Your task to perform on an android device: When is my next meeting? Image 0: 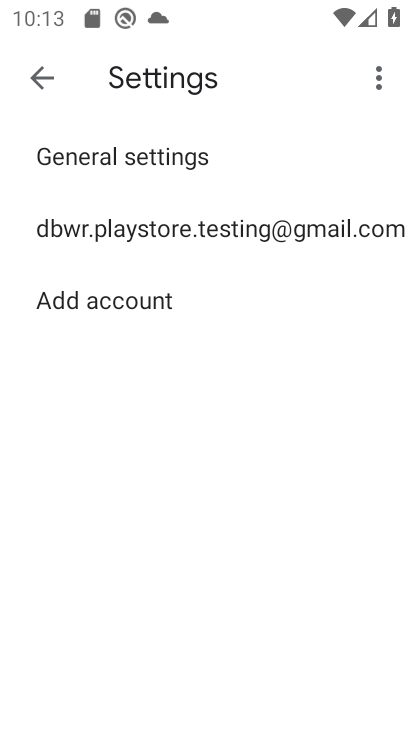
Step 0: press home button
Your task to perform on an android device: When is my next meeting? Image 1: 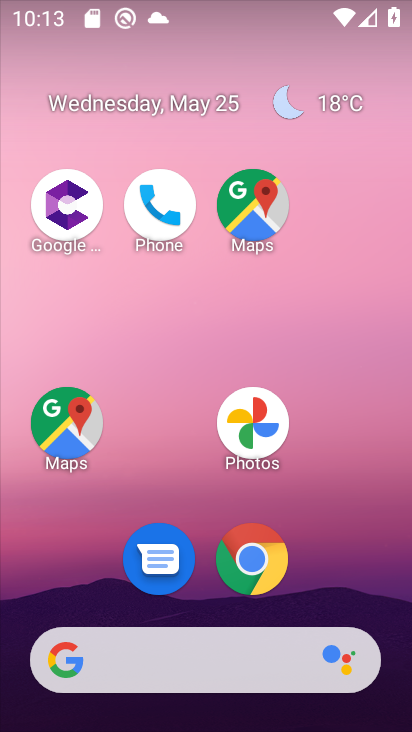
Step 1: drag from (358, 549) to (302, 71)
Your task to perform on an android device: When is my next meeting? Image 2: 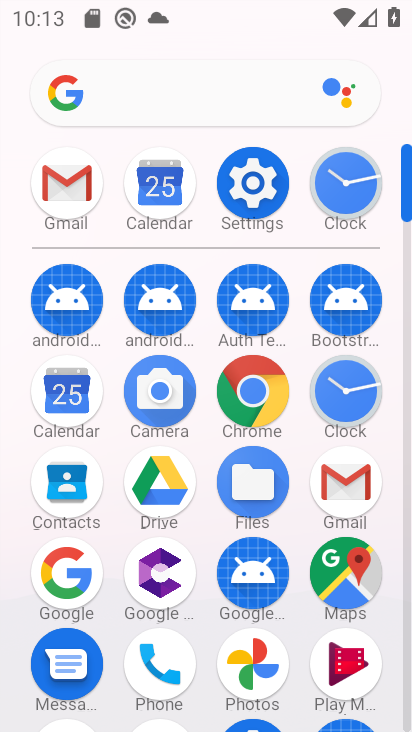
Step 2: click (159, 190)
Your task to perform on an android device: When is my next meeting? Image 3: 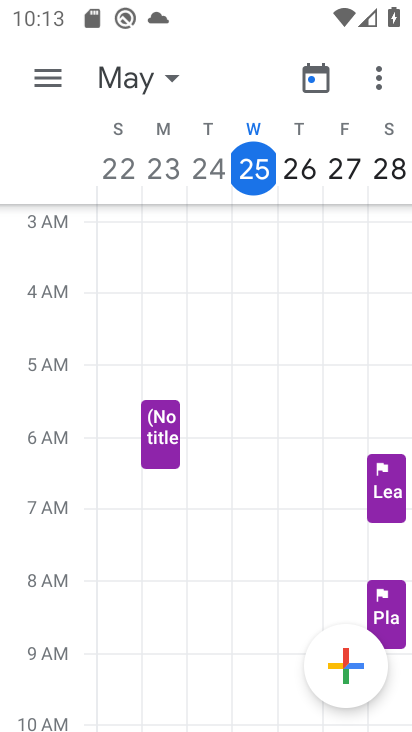
Step 3: click (55, 82)
Your task to perform on an android device: When is my next meeting? Image 4: 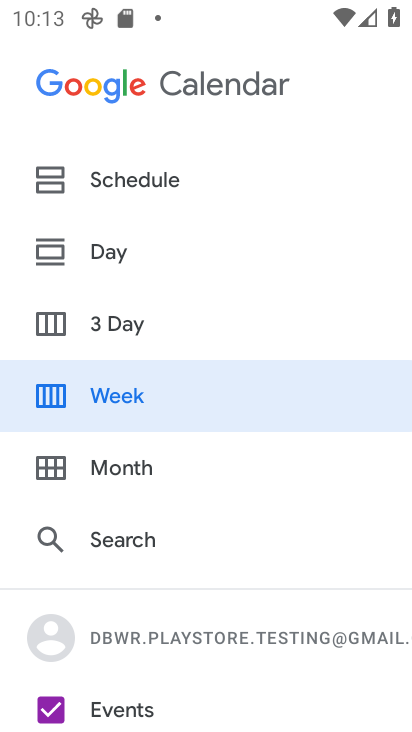
Step 4: click (131, 176)
Your task to perform on an android device: When is my next meeting? Image 5: 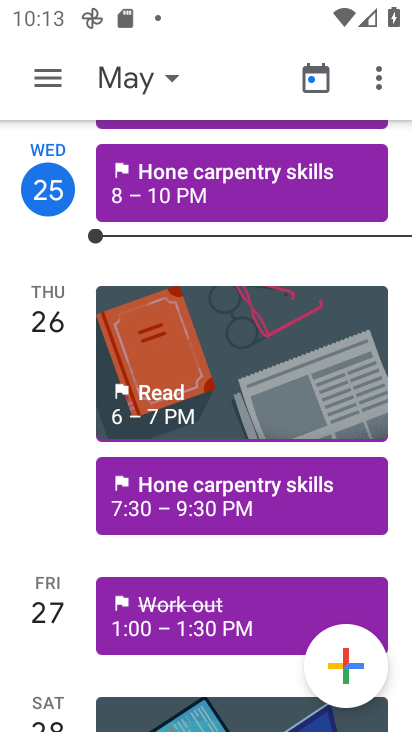
Step 5: drag from (184, 363) to (196, 187)
Your task to perform on an android device: When is my next meeting? Image 6: 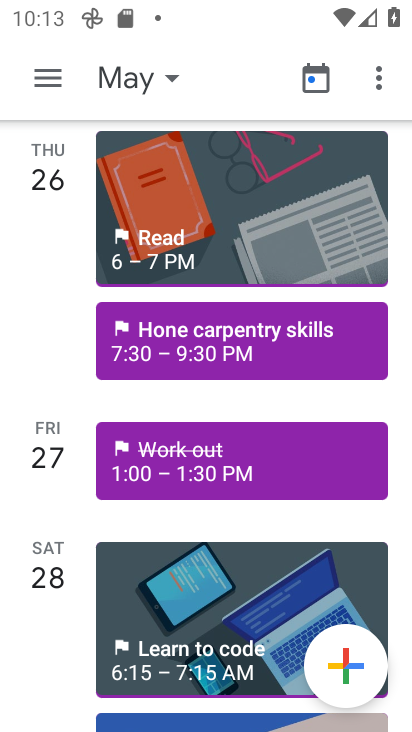
Step 6: click (203, 218)
Your task to perform on an android device: When is my next meeting? Image 7: 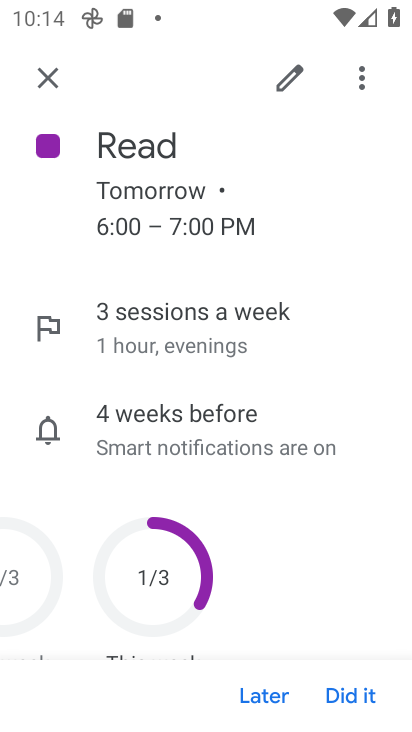
Step 7: task complete